Your task to perform on an android device: move an email to a new category in the gmail app Image 0: 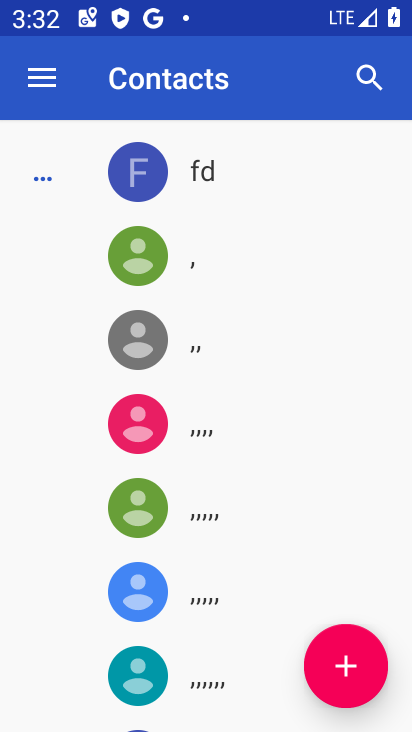
Step 0: press home button
Your task to perform on an android device: move an email to a new category in the gmail app Image 1: 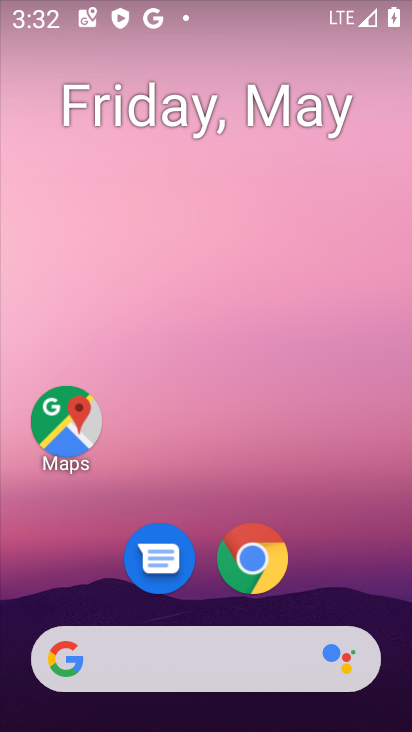
Step 1: drag from (168, 620) to (311, 149)
Your task to perform on an android device: move an email to a new category in the gmail app Image 2: 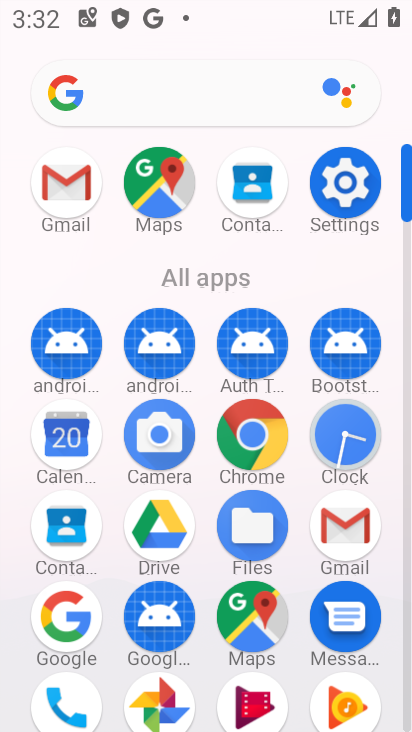
Step 2: click (60, 200)
Your task to perform on an android device: move an email to a new category in the gmail app Image 3: 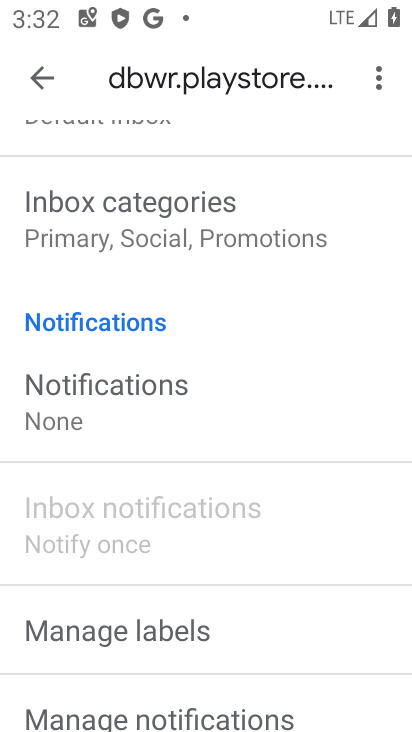
Step 3: click (40, 73)
Your task to perform on an android device: move an email to a new category in the gmail app Image 4: 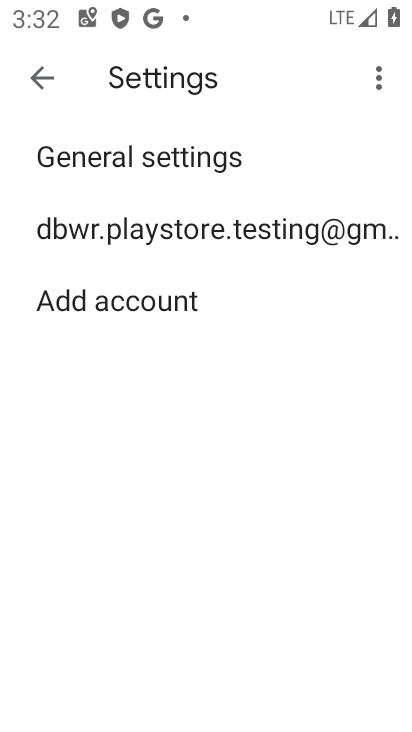
Step 4: click (40, 73)
Your task to perform on an android device: move an email to a new category in the gmail app Image 5: 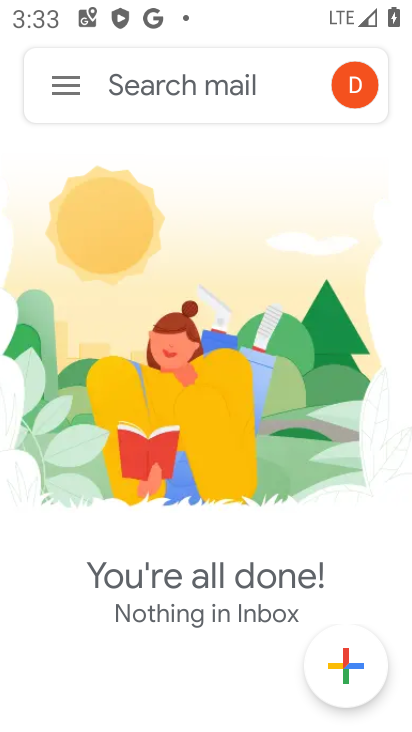
Step 5: task complete